Your task to perform on an android device: open chrome privacy settings Image 0: 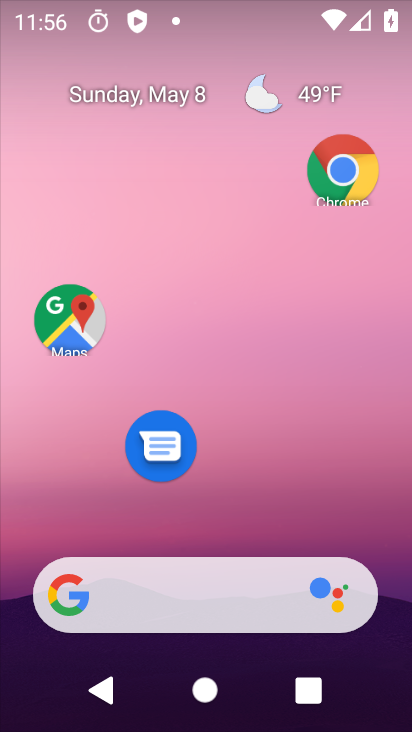
Step 0: drag from (325, 502) to (208, 2)
Your task to perform on an android device: open chrome privacy settings Image 1: 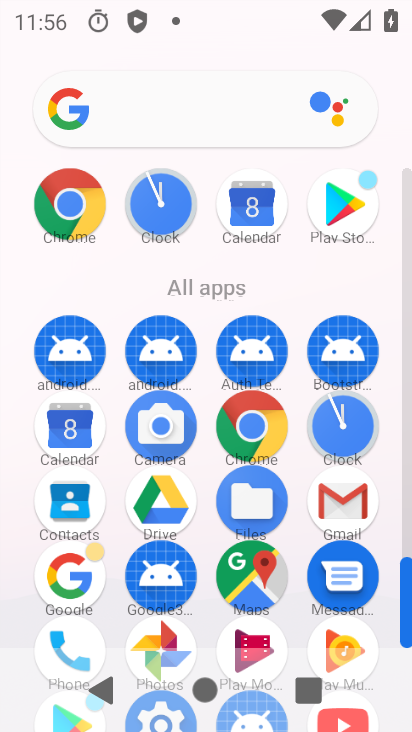
Step 1: drag from (284, 603) to (230, 171)
Your task to perform on an android device: open chrome privacy settings Image 2: 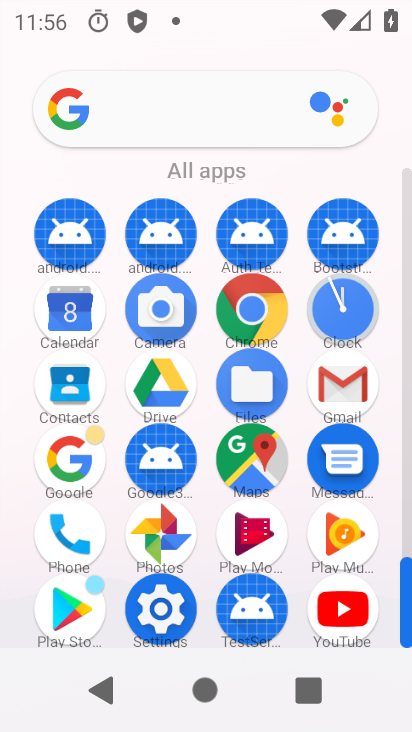
Step 2: click (164, 618)
Your task to perform on an android device: open chrome privacy settings Image 3: 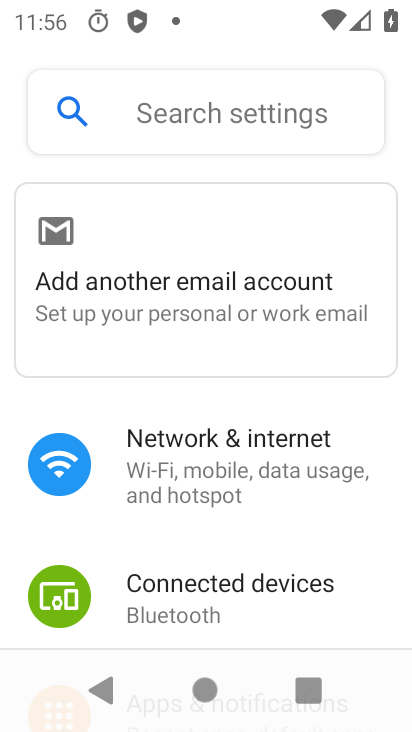
Step 3: press home button
Your task to perform on an android device: open chrome privacy settings Image 4: 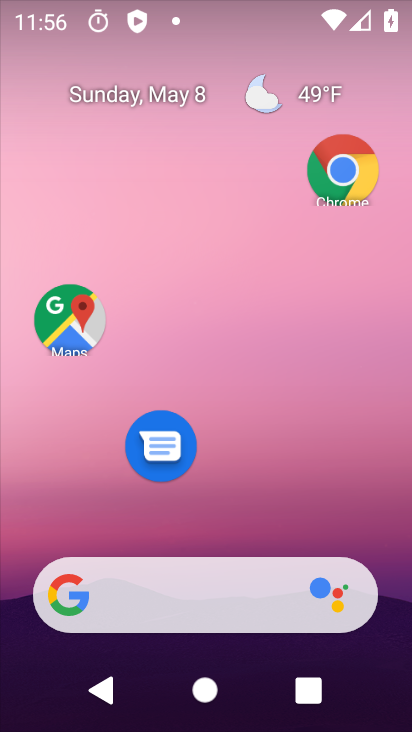
Step 4: drag from (263, 510) to (212, 31)
Your task to perform on an android device: open chrome privacy settings Image 5: 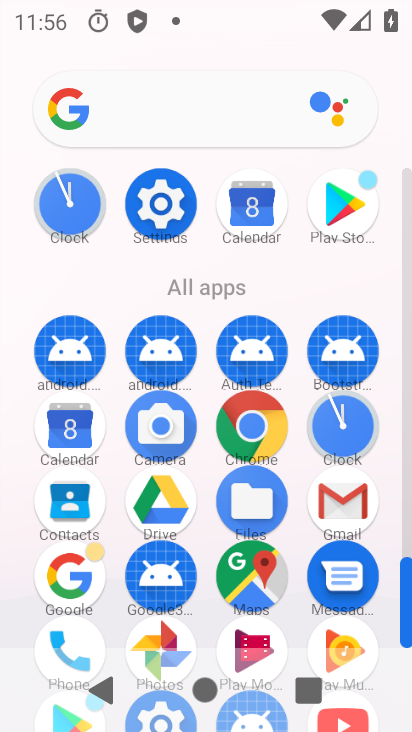
Step 5: click (245, 436)
Your task to perform on an android device: open chrome privacy settings Image 6: 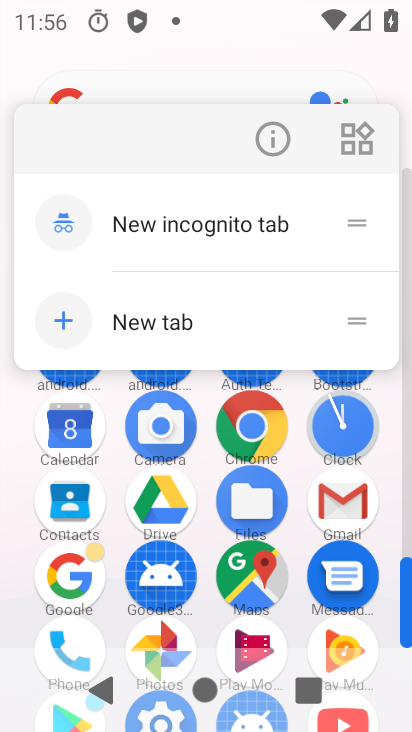
Step 6: click (240, 435)
Your task to perform on an android device: open chrome privacy settings Image 7: 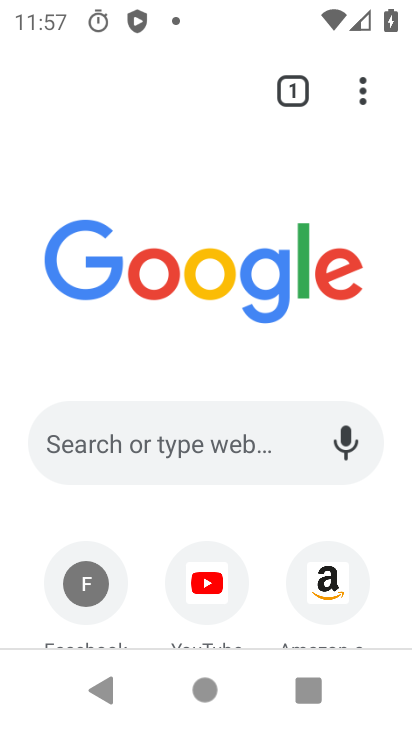
Step 7: click (364, 96)
Your task to perform on an android device: open chrome privacy settings Image 8: 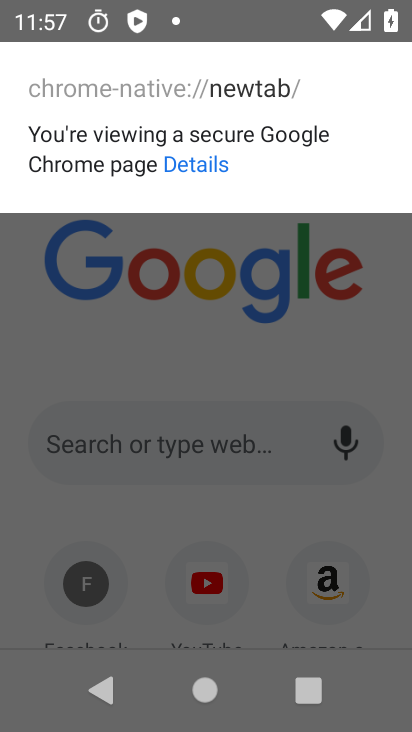
Step 8: click (360, 366)
Your task to perform on an android device: open chrome privacy settings Image 9: 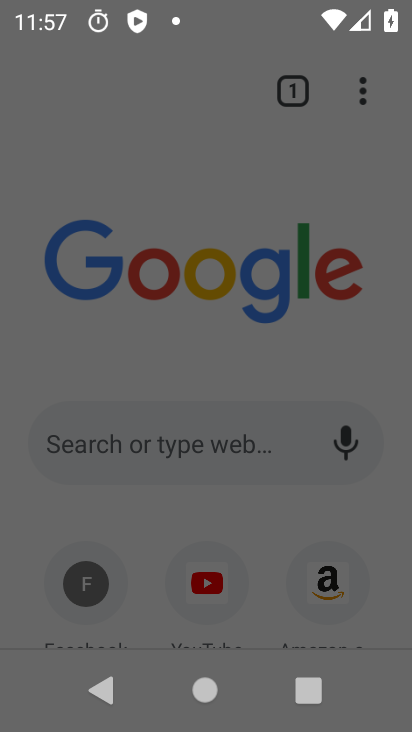
Step 9: click (360, 366)
Your task to perform on an android device: open chrome privacy settings Image 10: 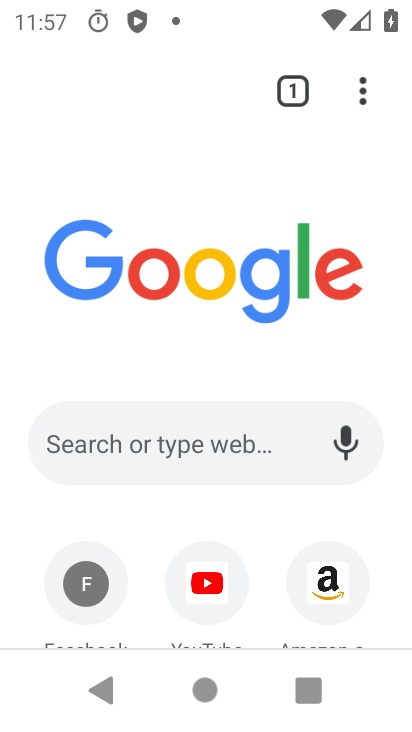
Step 10: click (361, 93)
Your task to perform on an android device: open chrome privacy settings Image 11: 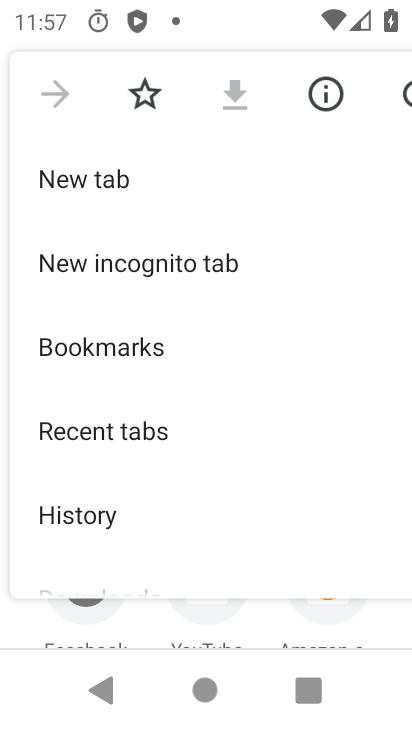
Step 11: drag from (216, 548) to (180, 160)
Your task to perform on an android device: open chrome privacy settings Image 12: 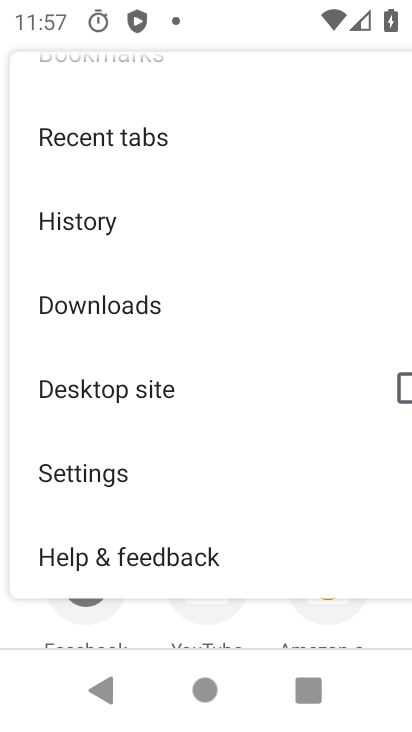
Step 12: click (126, 479)
Your task to perform on an android device: open chrome privacy settings Image 13: 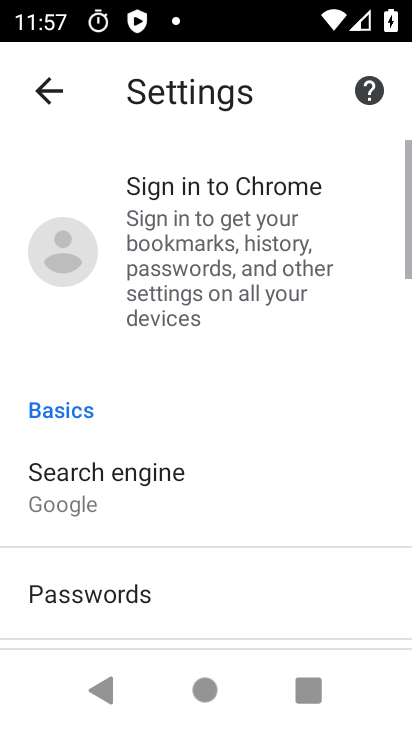
Step 13: drag from (302, 578) to (260, 29)
Your task to perform on an android device: open chrome privacy settings Image 14: 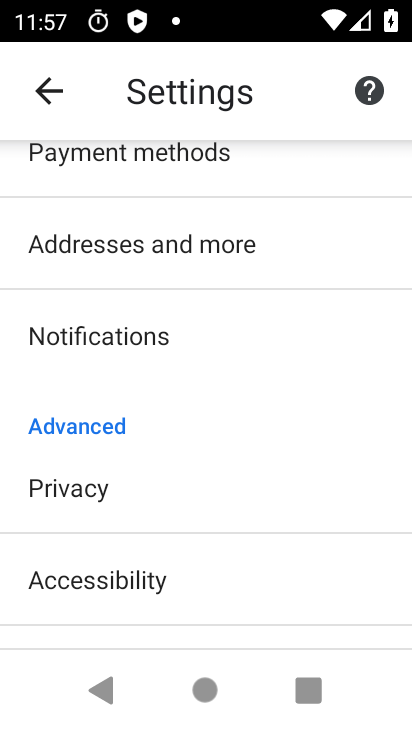
Step 14: click (149, 496)
Your task to perform on an android device: open chrome privacy settings Image 15: 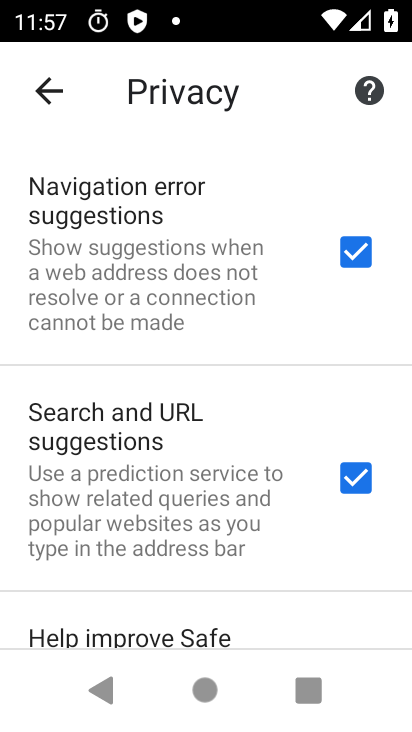
Step 15: task complete